Your task to perform on an android device: turn off wifi Image 0: 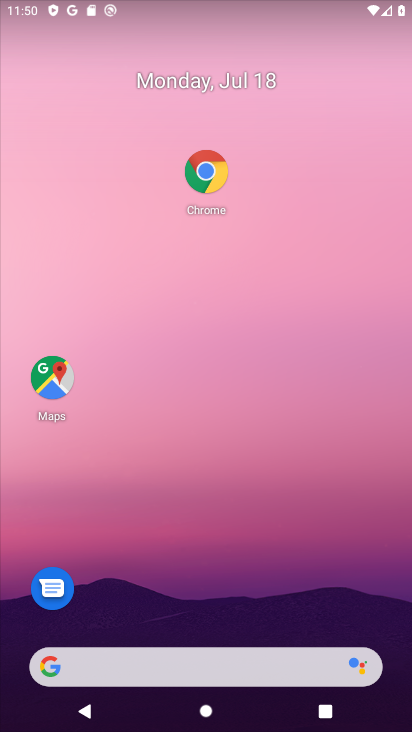
Step 0: drag from (151, 9) to (398, 595)
Your task to perform on an android device: turn off wifi Image 1: 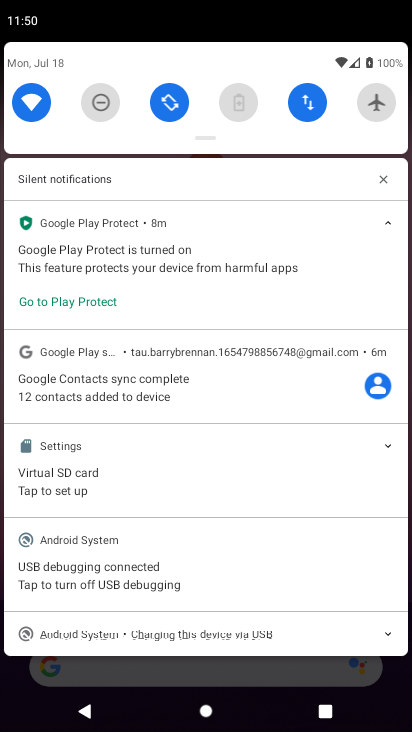
Step 1: click (44, 105)
Your task to perform on an android device: turn off wifi Image 2: 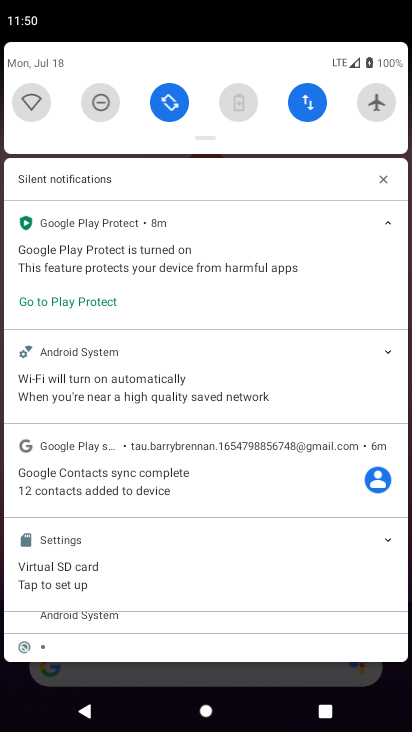
Step 2: task complete